Your task to perform on an android device: toggle sleep mode Image 0: 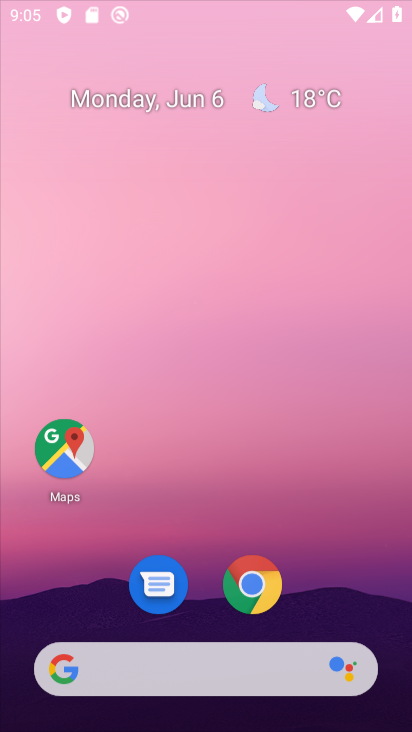
Step 0: click (307, 210)
Your task to perform on an android device: toggle sleep mode Image 1: 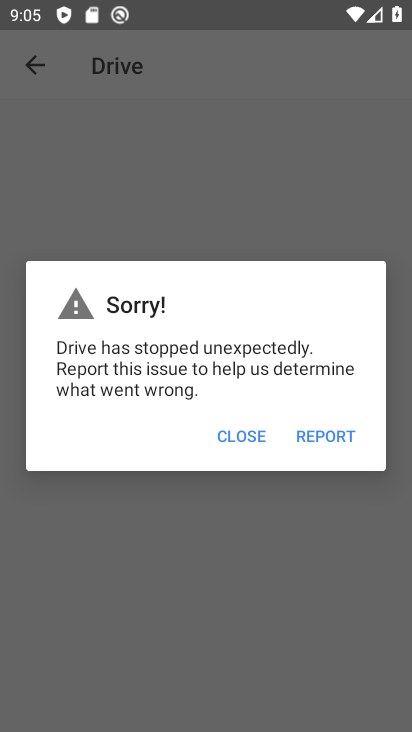
Step 1: press home button
Your task to perform on an android device: toggle sleep mode Image 2: 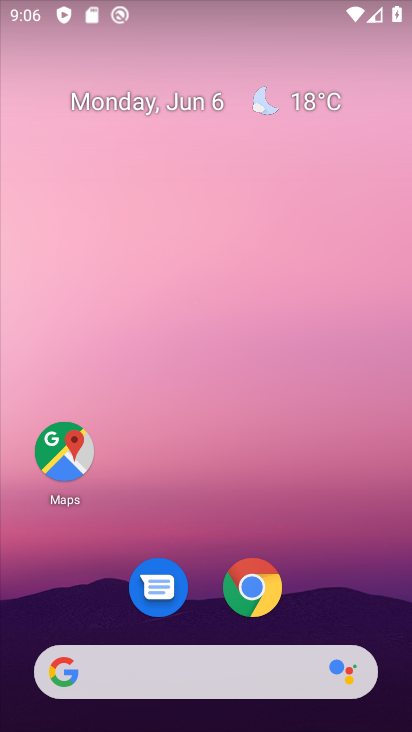
Step 2: drag from (349, 570) to (368, 163)
Your task to perform on an android device: toggle sleep mode Image 3: 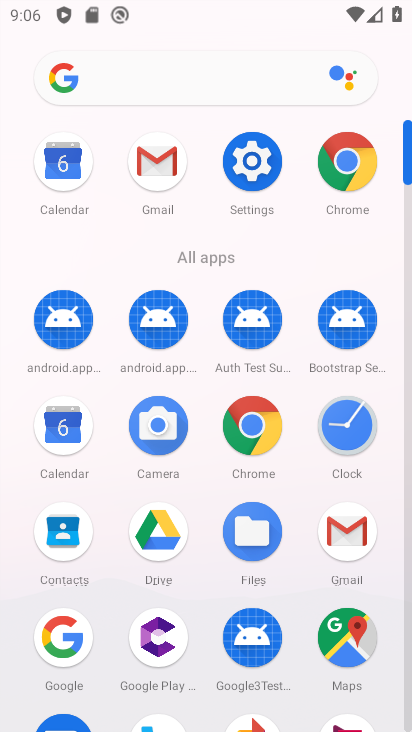
Step 3: click (245, 146)
Your task to perform on an android device: toggle sleep mode Image 4: 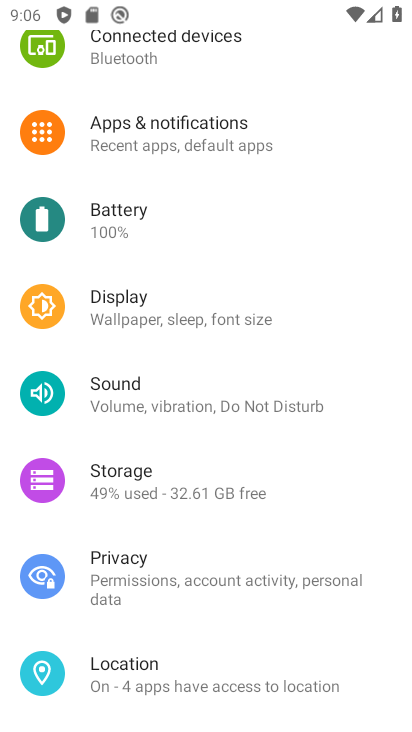
Step 4: click (148, 325)
Your task to perform on an android device: toggle sleep mode Image 5: 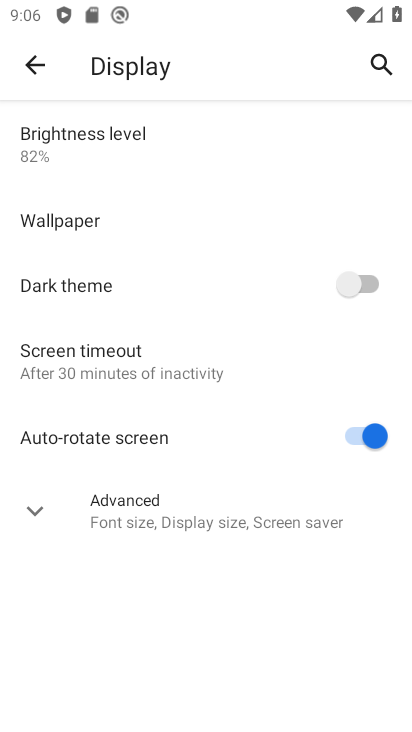
Step 5: click (119, 350)
Your task to perform on an android device: toggle sleep mode Image 6: 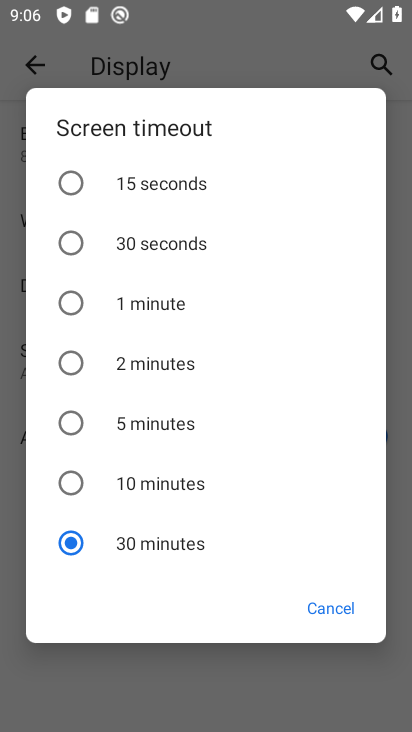
Step 6: click (166, 481)
Your task to perform on an android device: toggle sleep mode Image 7: 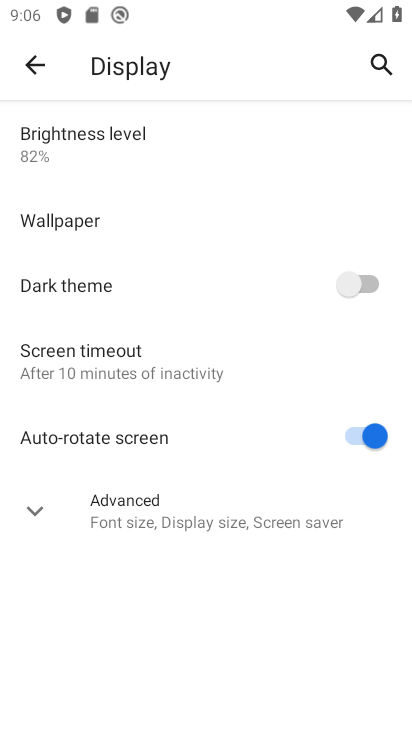
Step 7: task complete